Your task to perform on an android device: Go to battery settings Image 0: 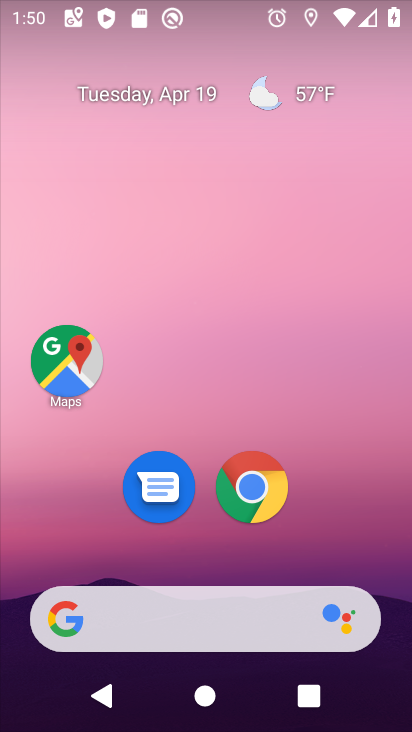
Step 0: drag from (358, 407) to (384, 101)
Your task to perform on an android device: Go to battery settings Image 1: 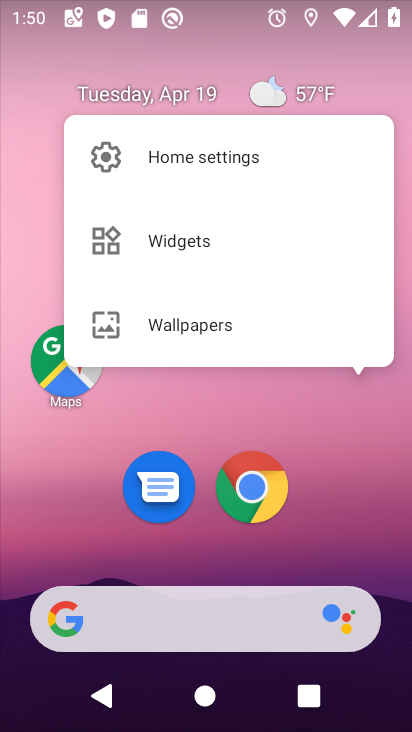
Step 1: click (273, 503)
Your task to perform on an android device: Go to battery settings Image 2: 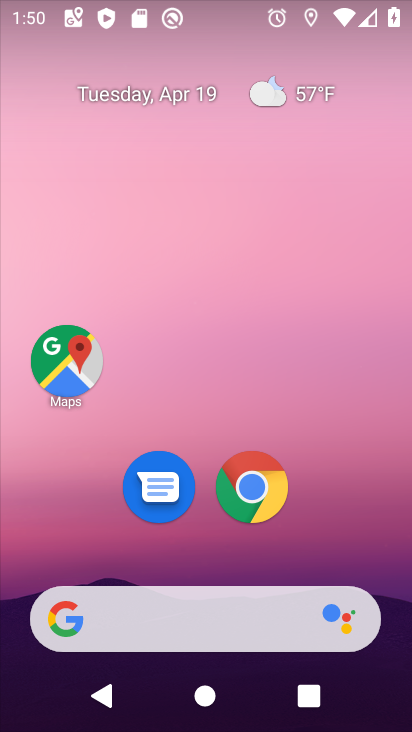
Step 2: click (273, 503)
Your task to perform on an android device: Go to battery settings Image 3: 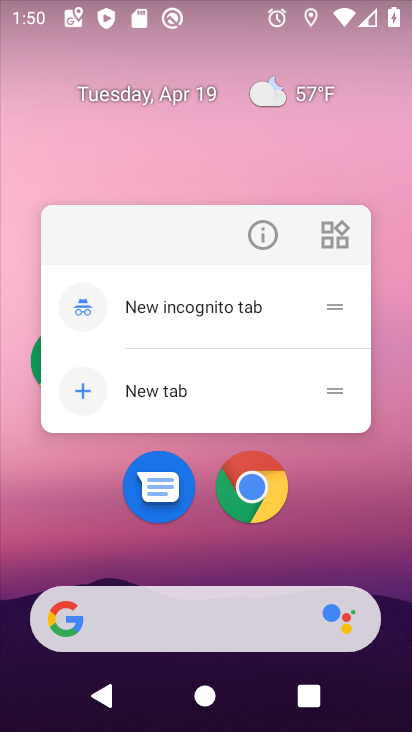
Step 3: click (274, 502)
Your task to perform on an android device: Go to battery settings Image 4: 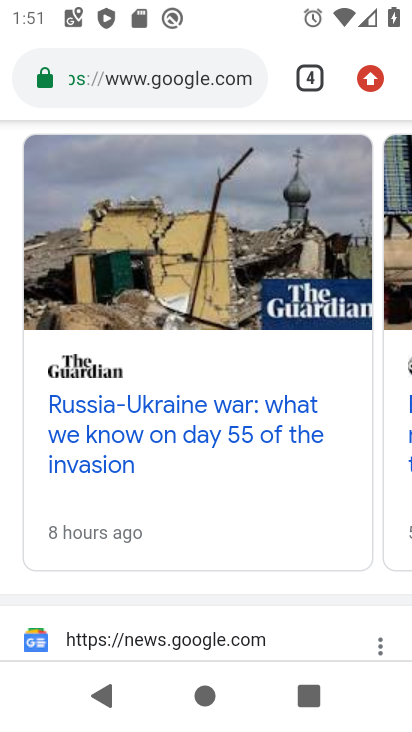
Step 4: press home button
Your task to perform on an android device: Go to battery settings Image 5: 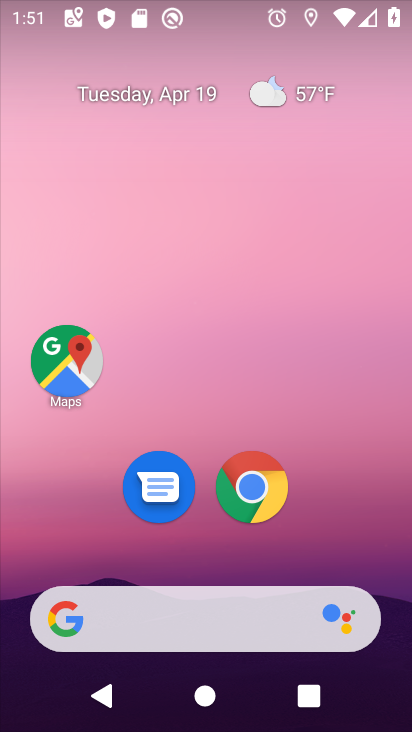
Step 5: drag from (359, 342) to (393, 78)
Your task to perform on an android device: Go to battery settings Image 6: 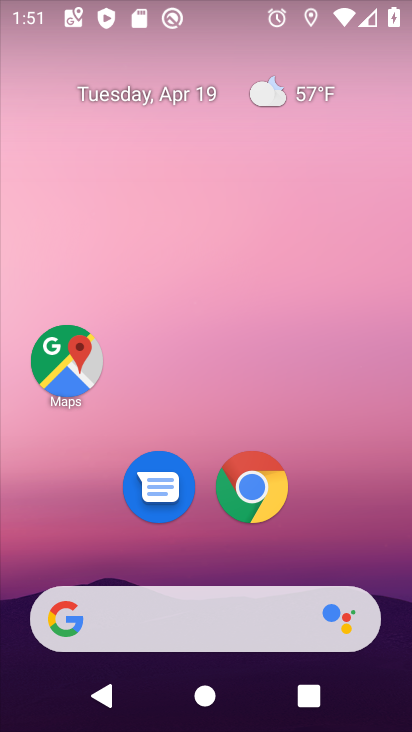
Step 6: drag from (344, 530) to (342, 141)
Your task to perform on an android device: Go to battery settings Image 7: 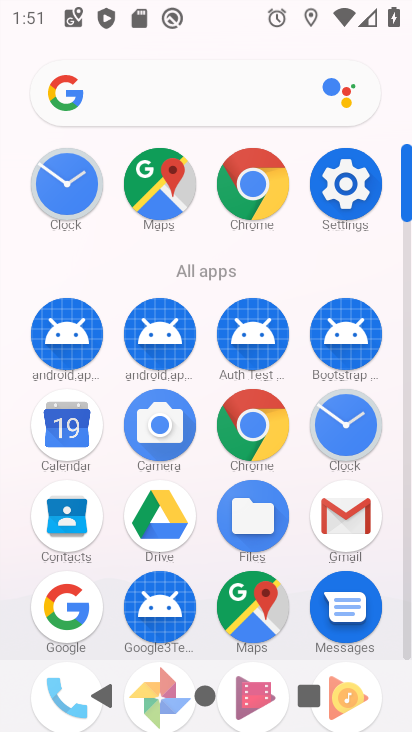
Step 7: click (336, 198)
Your task to perform on an android device: Go to battery settings Image 8: 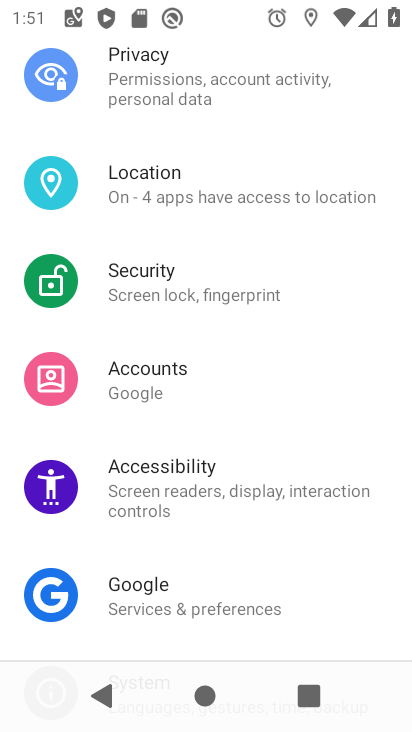
Step 8: drag from (318, 259) to (327, 601)
Your task to perform on an android device: Go to battery settings Image 9: 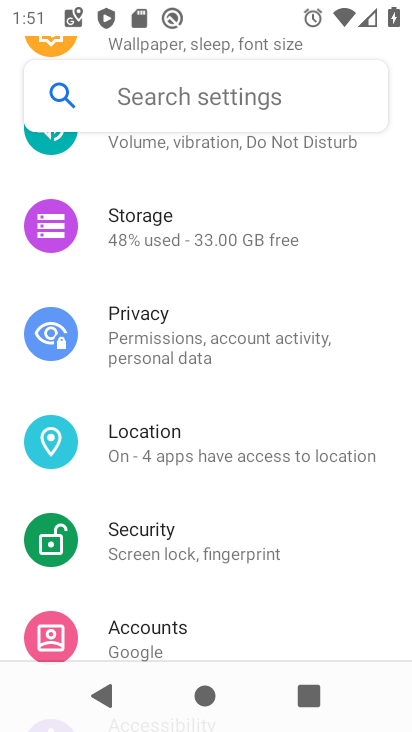
Step 9: drag from (316, 217) to (335, 541)
Your task to perform on an android device: Go to battery settings Image 10: 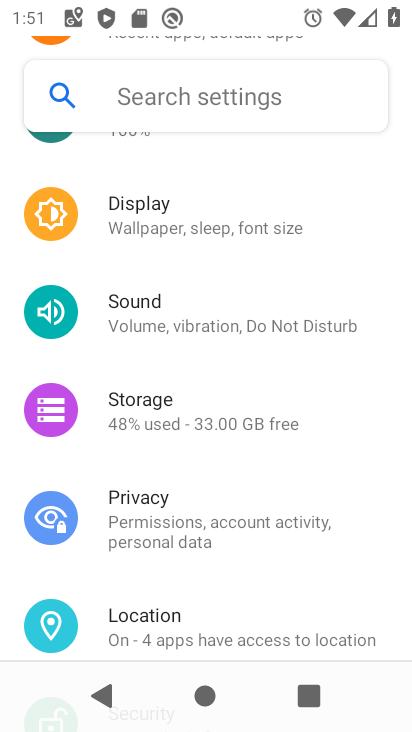
Step 10: drag from (303, 278) to (343, 617)
Your task to perform on an android device: Go to battery settings Image 11: 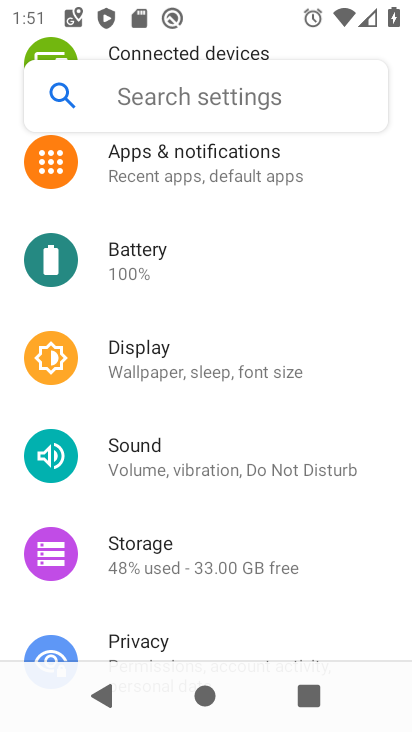
Step 11: click (177, 251)
Your task to perform on an android device: Go to battery settings Image 12: 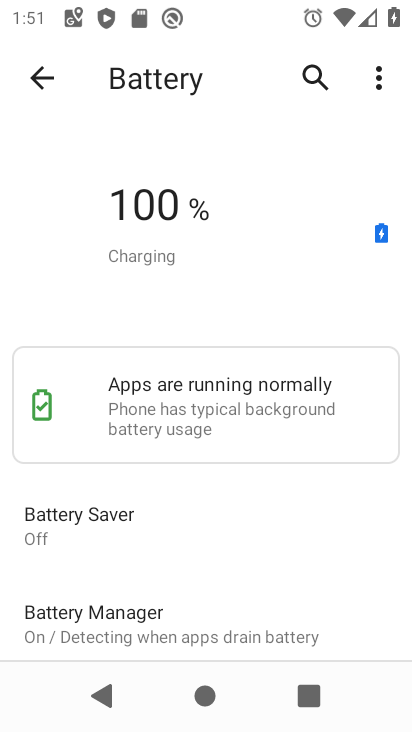
Step 12: task complete